Your task to perform on an android device: clear history in the chrome app Image 0: 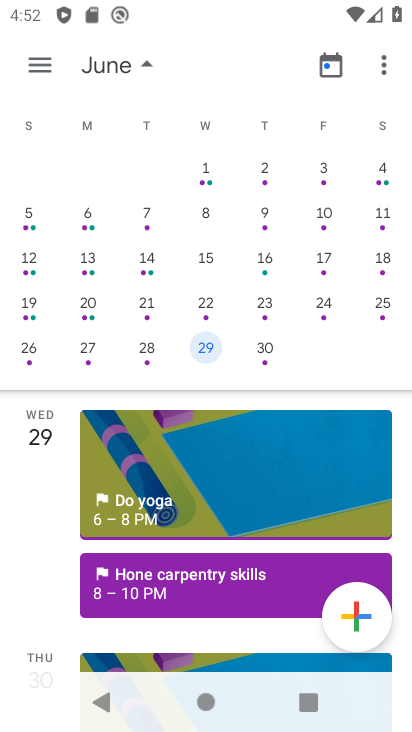
Step 0: press home button
Your task to perform on an android device: clear history in the chrome app Image 1: 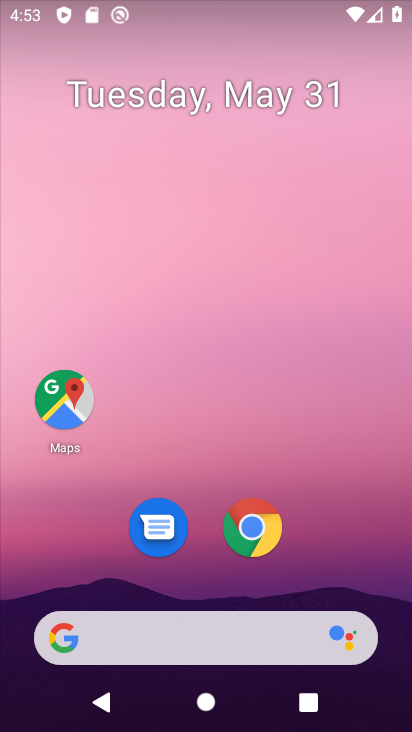
Step 1: click (259, 540)
Your task to perform on an android device: clear history in the chrome app Image 2: 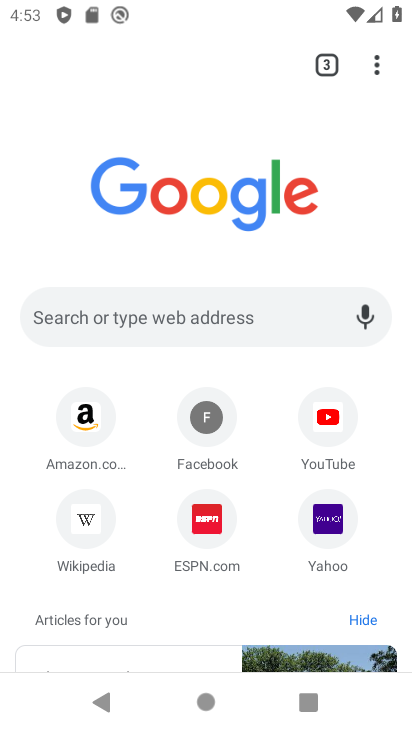
Step 2: drag from (373, 64) to (191, 358)
Your task to perform on an android device: clear history in the chrome app Image 3: 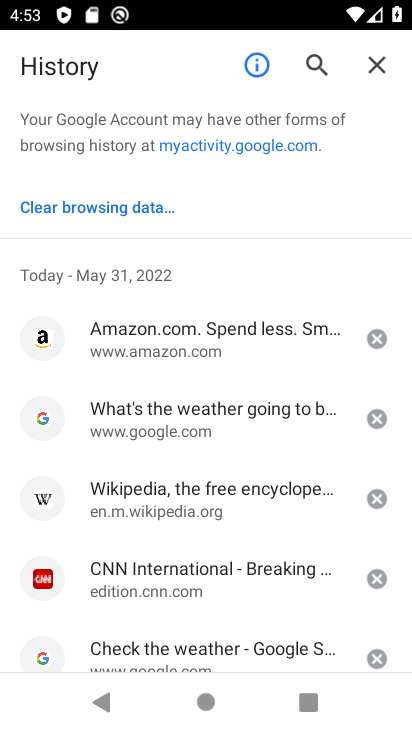
Step 3: click (60, 324)
Your task to perform on an android device: clear history in the chrome app Image 4: 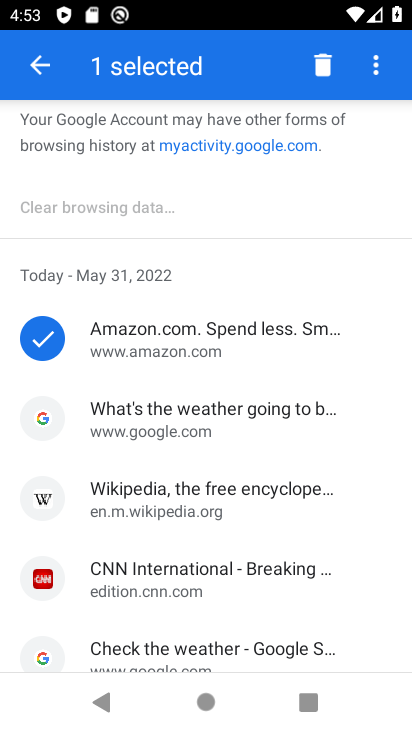
Step 4: click (56, 413)
Your task to perform on an android device: clear history in the chrome app Image 5: 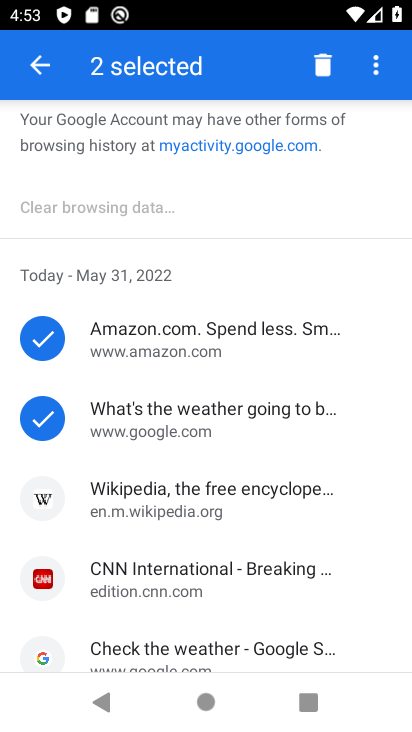
Step 5: drag from (170, 497) to (191, 268)
Your task to perform on an android device: clear history in the chrome app Image 6: 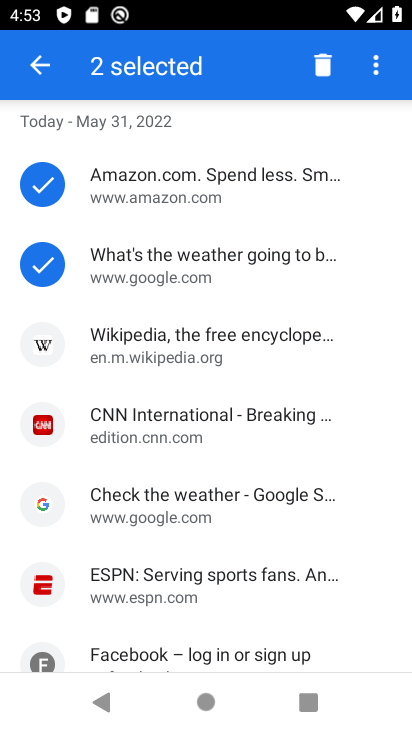
Step 6: click (30, 351)
Your task to perform on an android device: clear history in the chrome app Image 7: 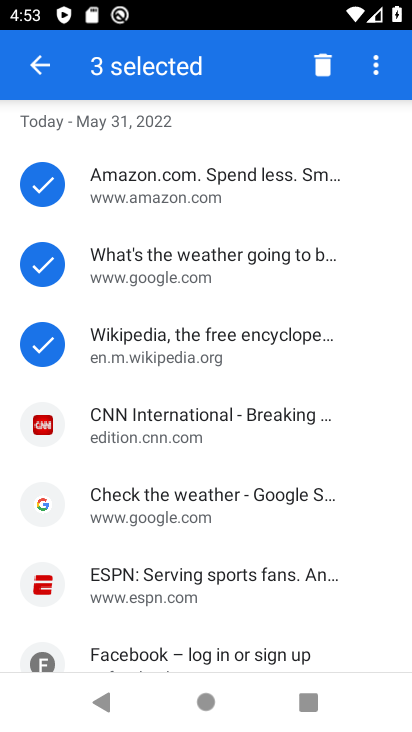
Step 7: click (38, 420)
Your task to perform on an android device: clear history in the chrome app Image 8: 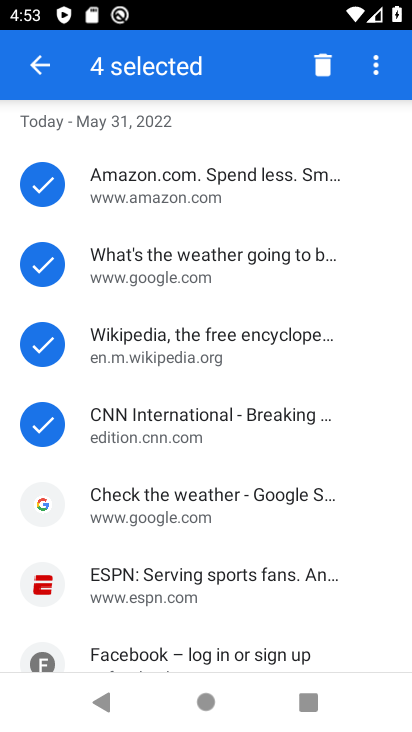
Step 8: click (38, 502)
Your task to perform on an android device: clear history in the chrome app Image 9: 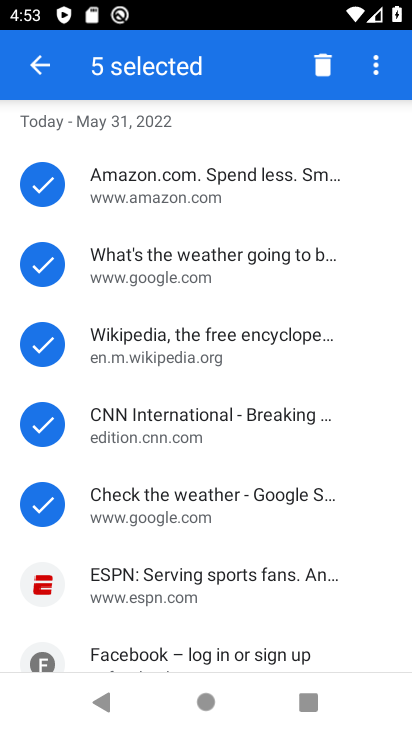
Step 9: click (38, 587)
Your task to perform on an android device: clear history in the chrome app Image 10: 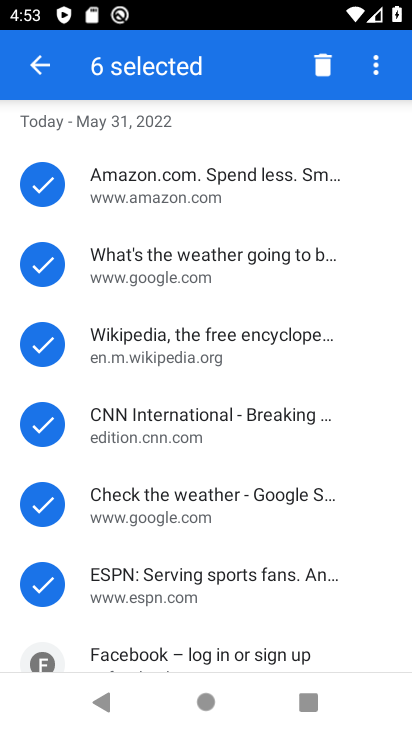
Step 10: drag from (88, 605) to (148, 264)
Your task to perform on an android device: clear history in the chrome app Image 11: 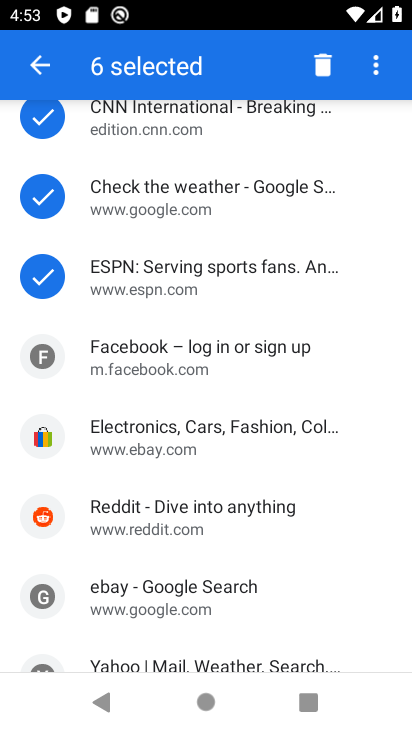
Step 11: click (43, 601)
Your task to perform on an android device: clear history in the chrome app Image 12: 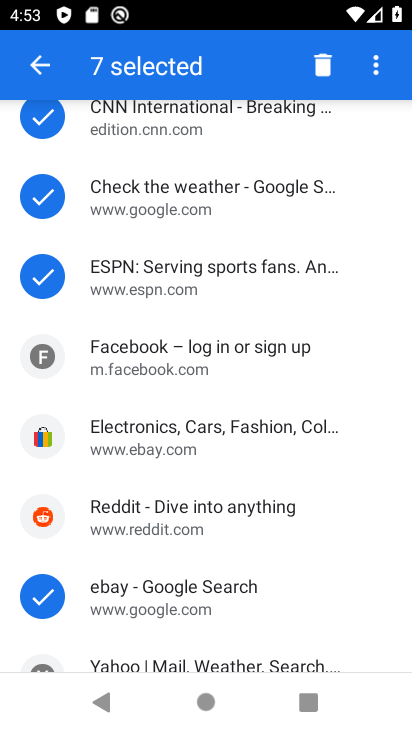
Step 12: click (41, 518)
Your task to perform on an android device: clear history in the chrome app Image 13: 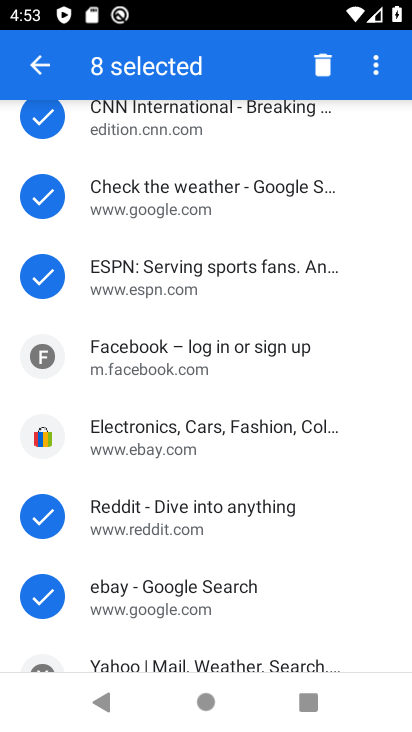
Step 13: click (52, 440)
Your task to perform on an android device: clear history in the chrome app Image 14: 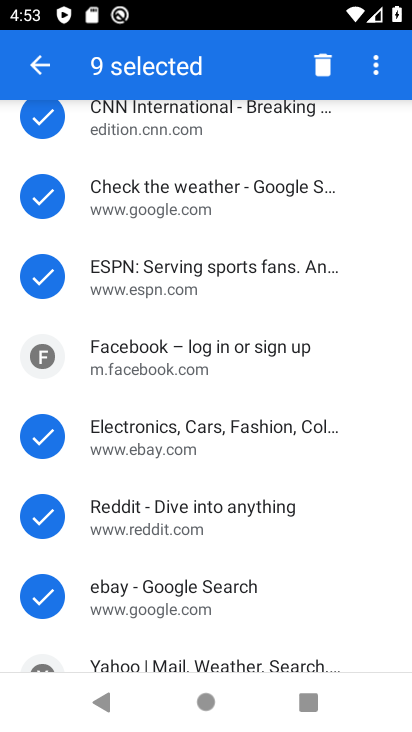
Step 14: click (48, 366)
Your task to perform on an android device: clear history in the chrome app Image 15: 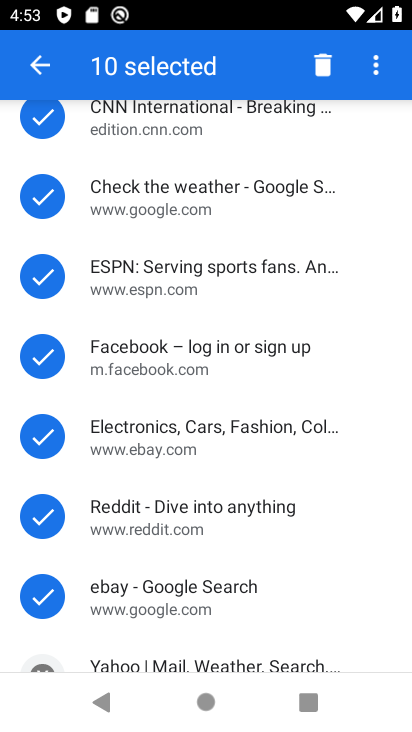
Step 15: drag from (135, 597) to (167, 204)
Your task to perform on an android device: clear history in the chrome app Image 16: 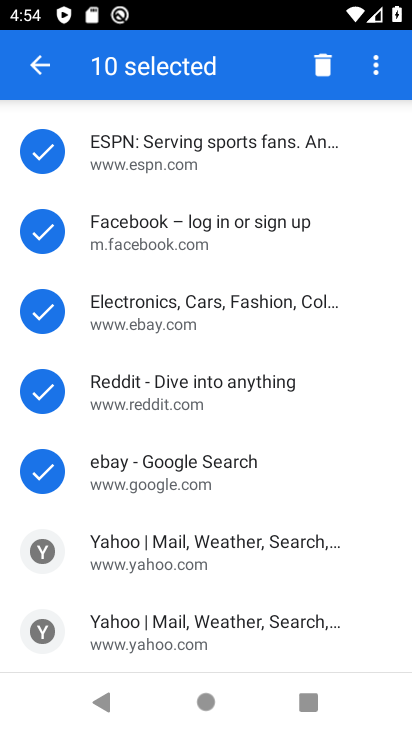
Step 16: click (43, 637)
Your task to perform on an android device: clear history in the chrome app Image 17: 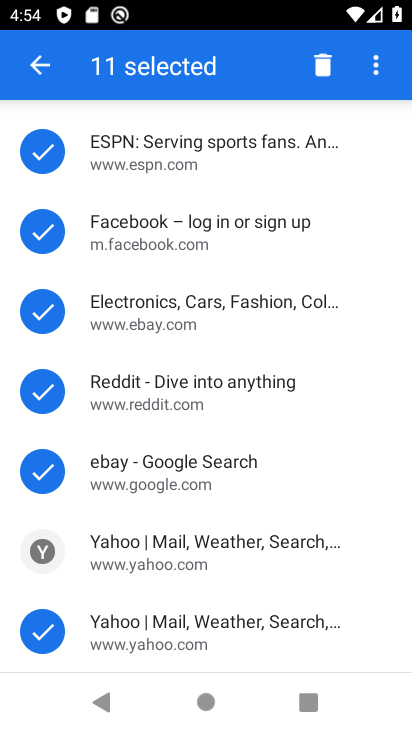
Step 17: click (52, 555)
Your task to perform on an android device: clear history in the chrome app Image 18: 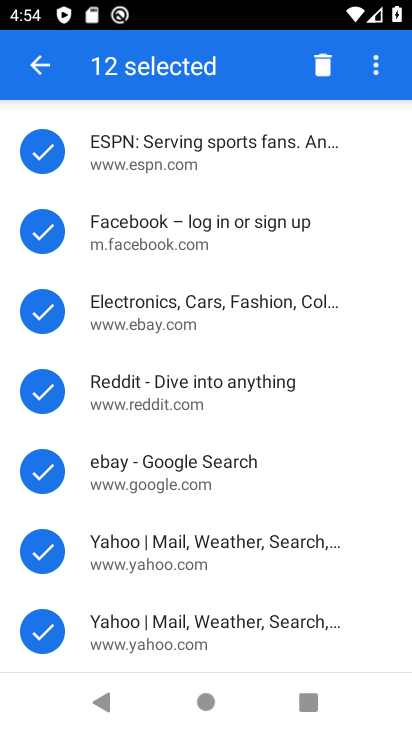
Step 18: click (322, 66)
Your task to perform on an android device: clear history in the chrome app Image 19: 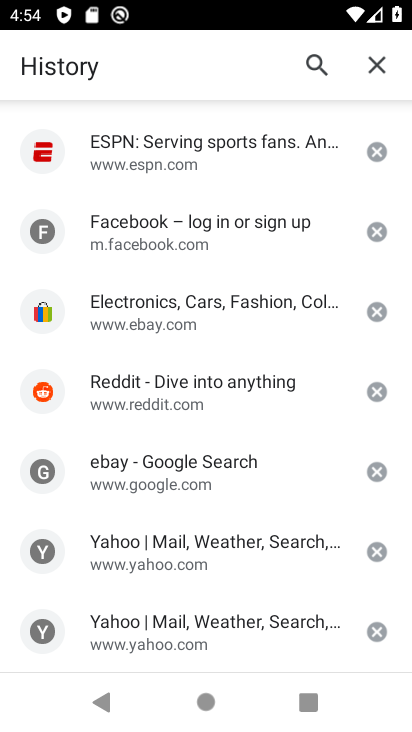
Step 19: click (36, 154)
Your task to perform on an android device: clear history in the chrome app Image 20: 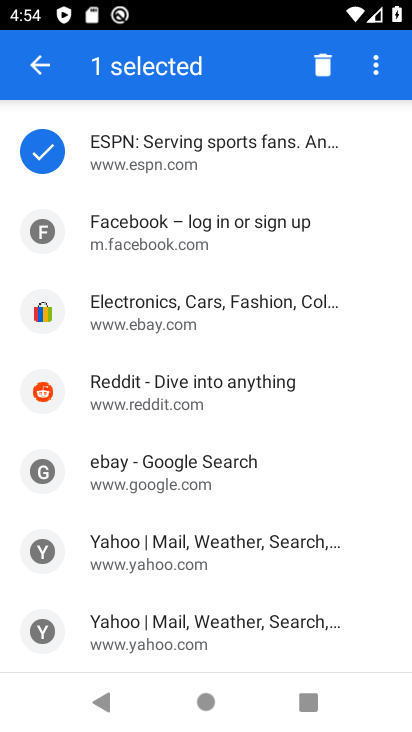
Step 20: click (38, 234)
Your task to perform on an android device: clear history in the chrome app Image 21: 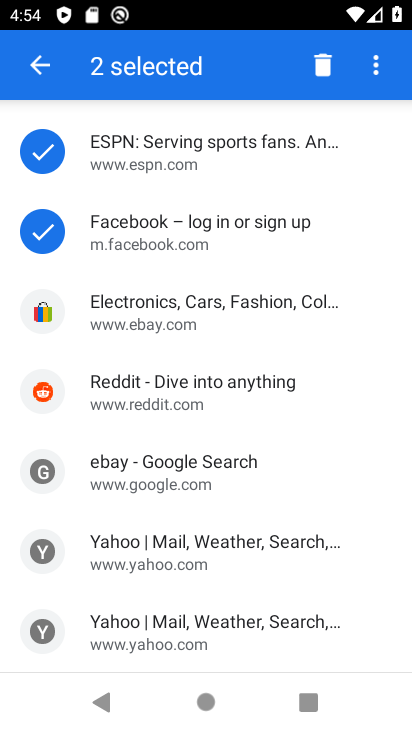
Step 21: click (43, 315)
Your task to perform on an android device: clear history in the chrome app Image 22: 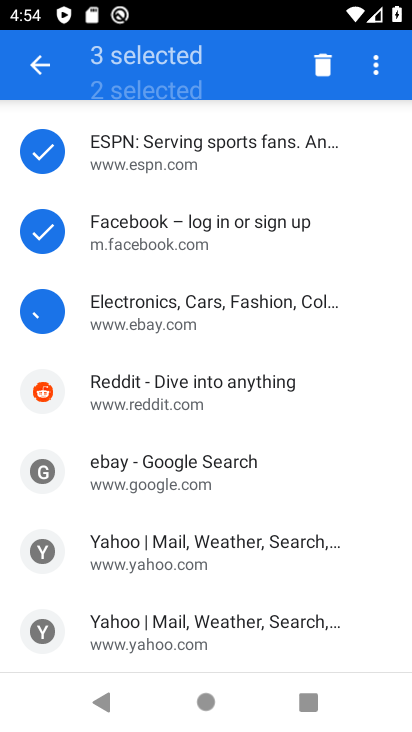
Step 22: click (43, 396)
Your task to perform on an android device: clear history in the chrome app Image 23: 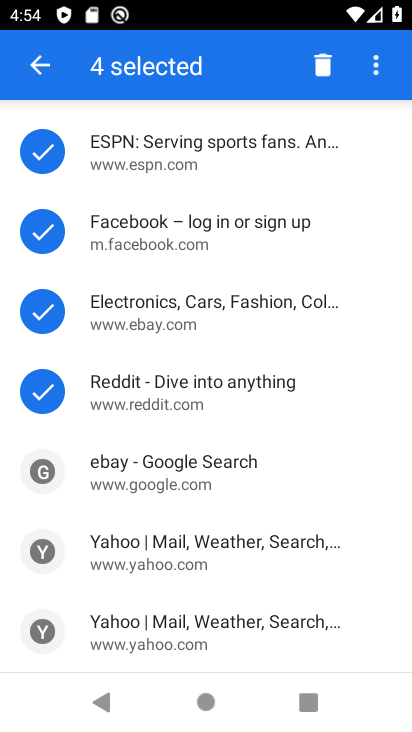
Step 23: click (39, 469)
Your task to perform on an android device: clear history in the chrome app Image 24: 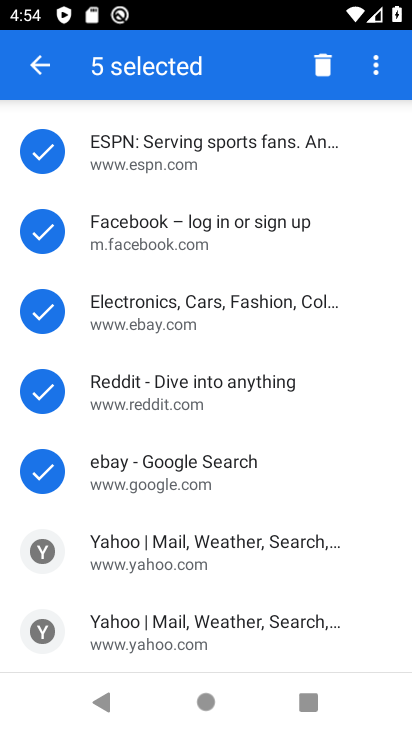
Step 24: click (46, 550)
Your task to perform on an android device: clear history in the chrome app Image 25: 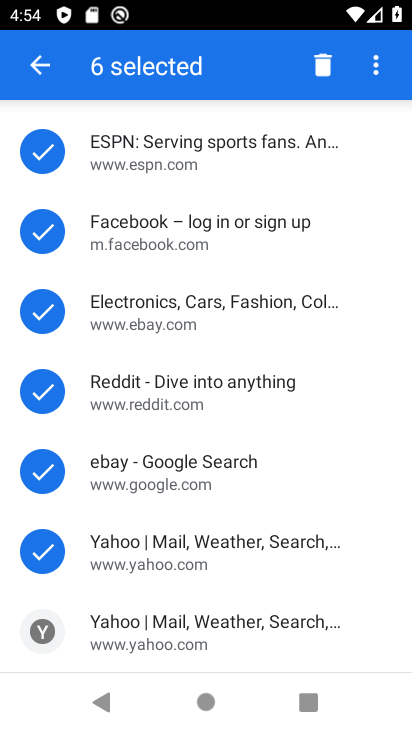
Step 25: click (46, 630)
Your task to perform on an android device: clear history in the chrome app Image 26: 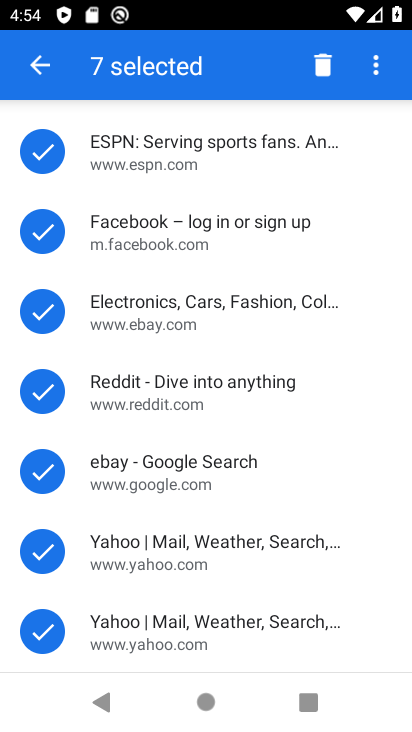
Step 26: click (326, 68)
Your task to perform on an android device: clear history in the chrome app Image 27: 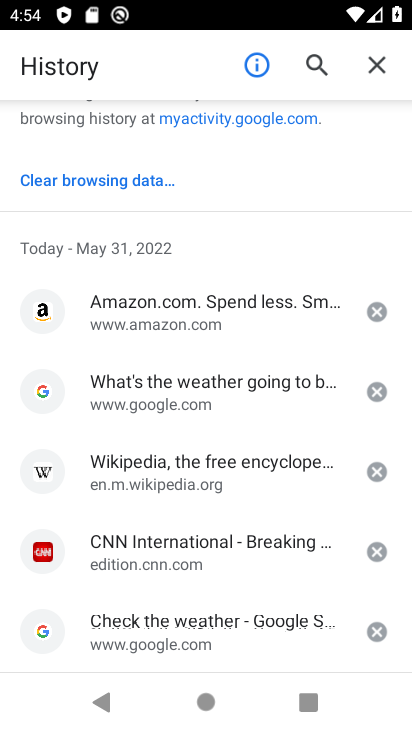
Step 27: click (33, 308)
Your task to perform on an android device: clear history in the chrome app Image 28: 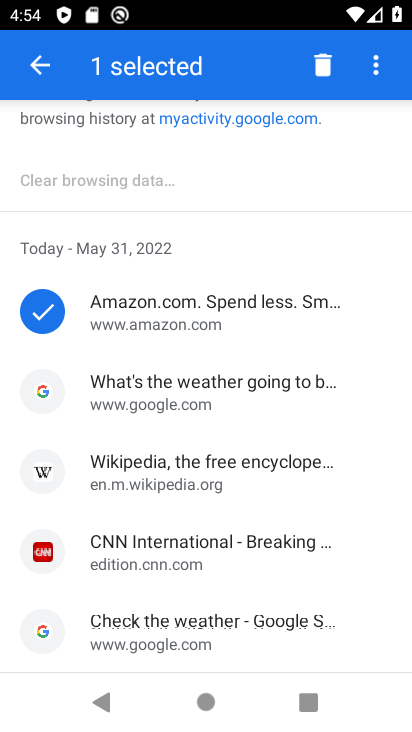
Step 28: click (41, 397)
Your task to perform on an android device: clear history in the chrome app Image 29: 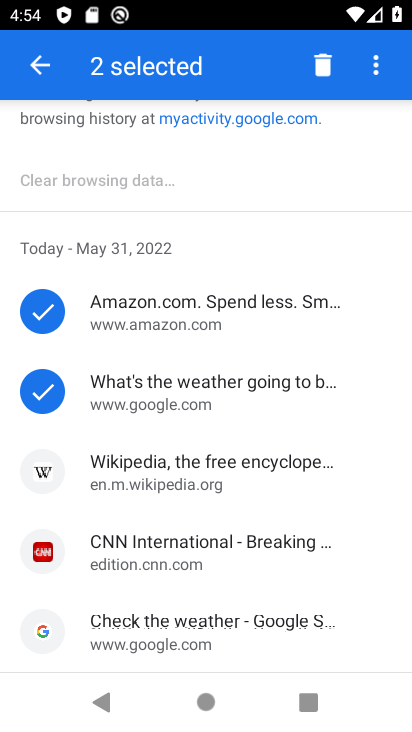
Step 29: click (41, 478)
Your task to perform on an android device: clear history in the chrome app Image 30: 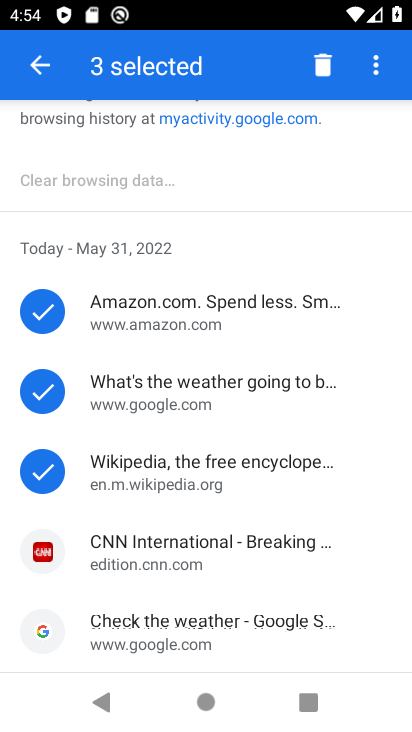
Step 30: click (46, 543)
Your task to perform on an android device: clear history in the chrome app Image 31: 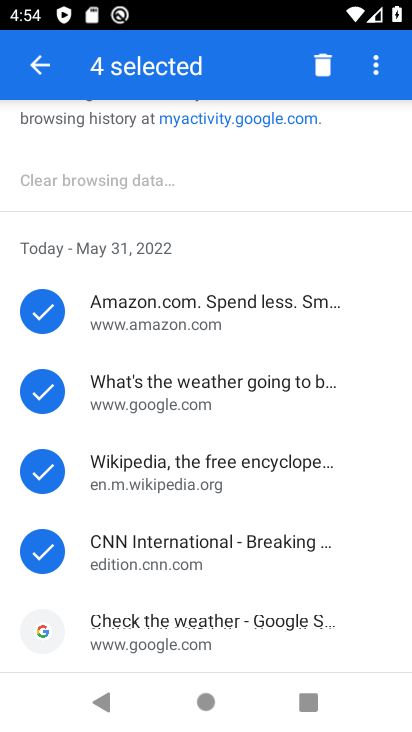
Step 31: click (52, 624)
Your task to perform on an android device: clear history in the chrome app Image 32: 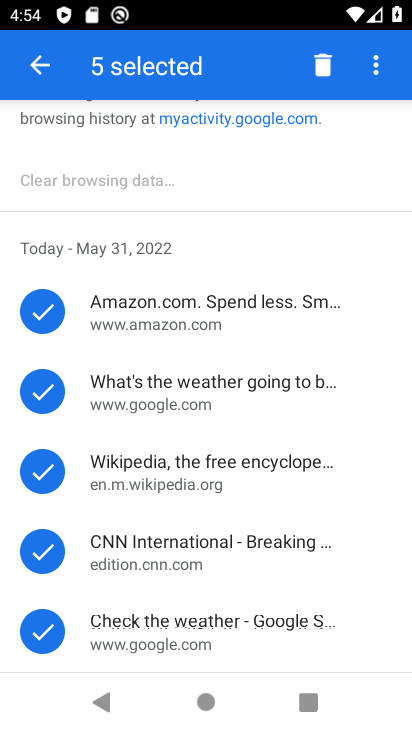
Step 32: click (322, 58)
Your task to perform on an android device: clear history in the chrome app Image 33: 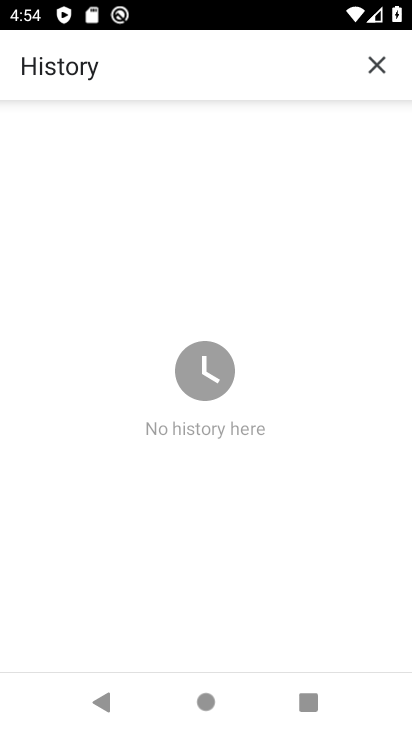
Step 33: task complete